Your task to perform on an android device: Go to calendar. Show me events next week Image 0: 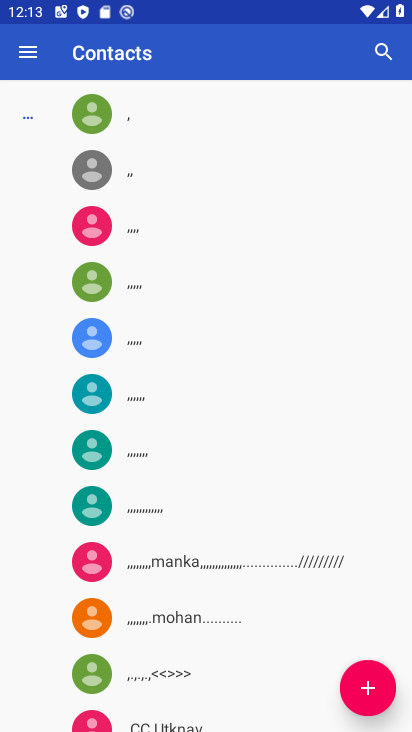
Step 0: press home button
Your task to perform on an android device: Go to calendar. Show me events next week Image 1: 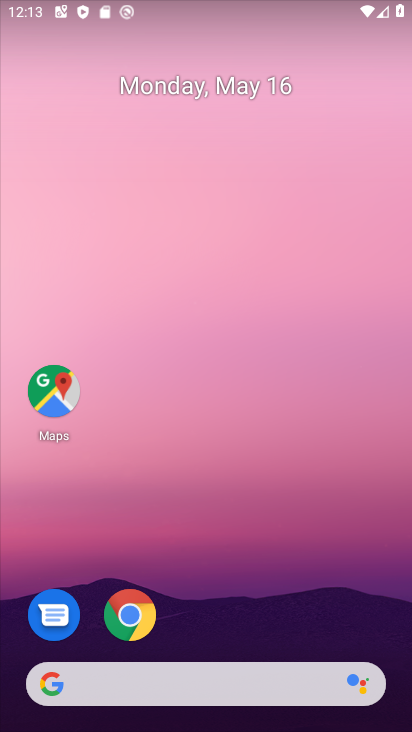
Step 1: drag from (270, 692) to (213, 312)
Your task to perform on an android device: Go to calendar. Show me events next week Image 2: 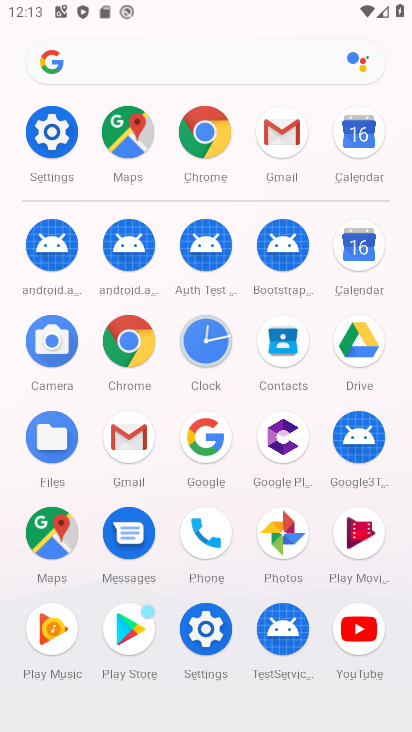
Step 2: click (348, 243)
Your task to perform on an android device: Go to calendar. Show me events next week Image 3: 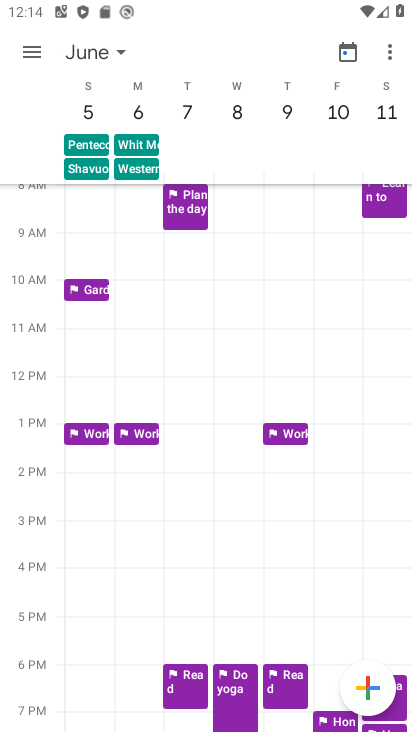
Step 3: task complete